Your task to perform on an android device: delete the emails in spam in the gmail app Image 0: 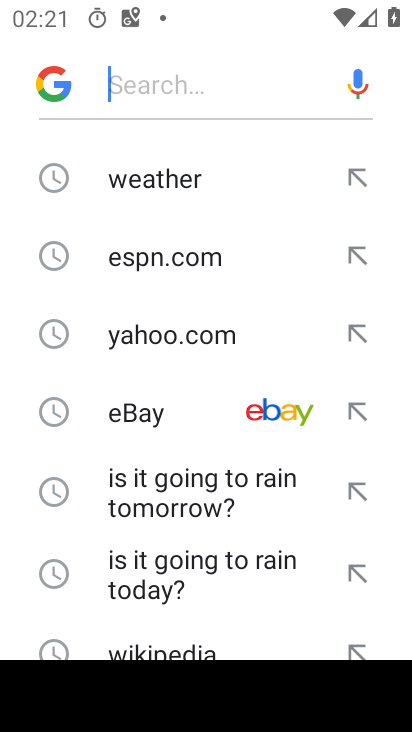
Step 0: press home button
Your task to perform on an android device: delete the emails in spam in the gmail app Image 1: 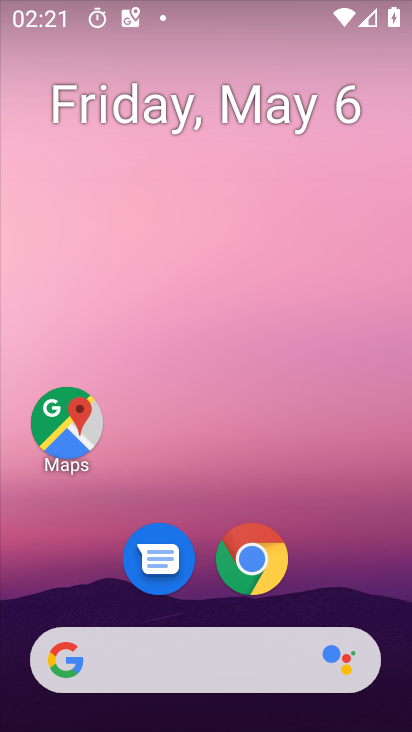
Step 1: drag from (352, 625) to (280, 7)
Your task to perform on an android device: delete the emails in spam in the gmail app Image 2: 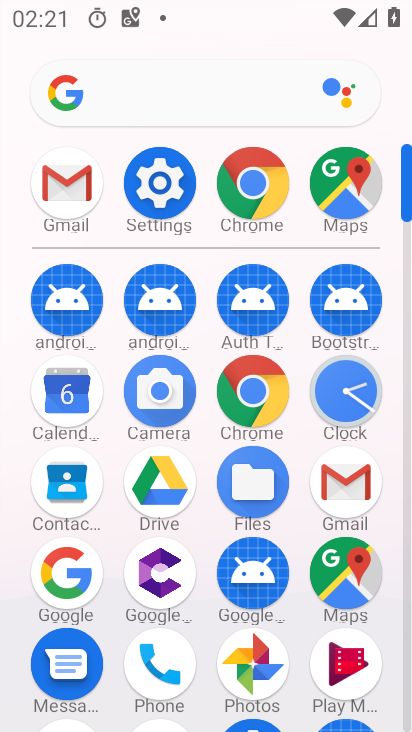
Step 2: click (353, 497)
Your task to perform on an android device: delete the emails in spam in the gmail app Image 3: 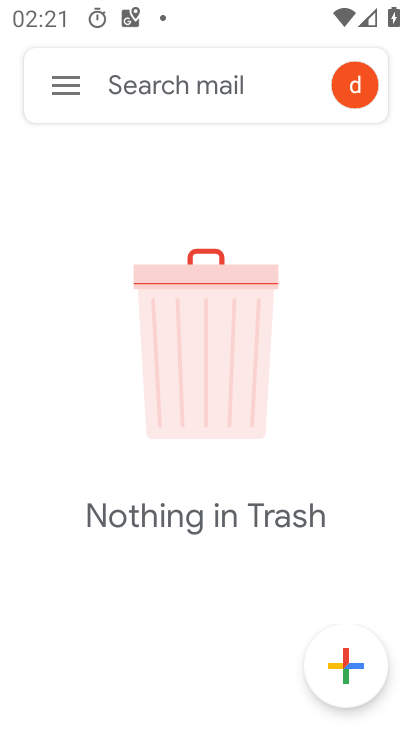
Step 3: click (57, 81)
Your task to perform on an android device: delete the emails in spam in the gmail app Image 4: 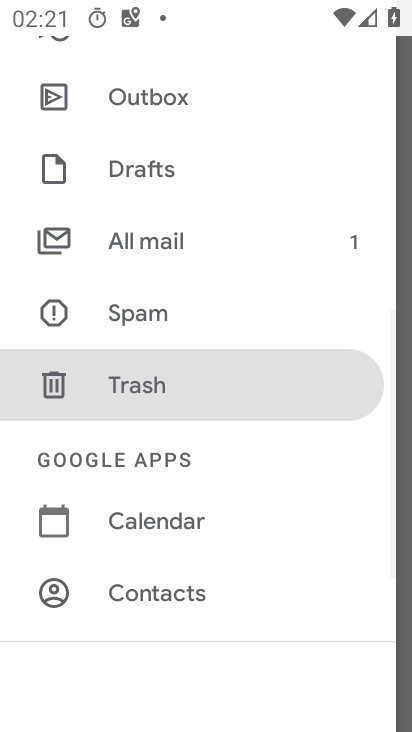
Step 4: click (166, 301)
Your task to perform on an android device: delete the emails in spam in the gmail app Image 5: 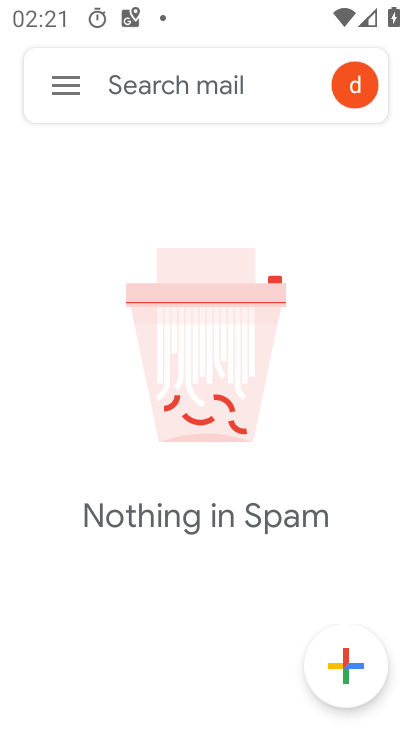
Step 5: task complete